Your task to perform on an android device: find photos in the google photos app Image 0: 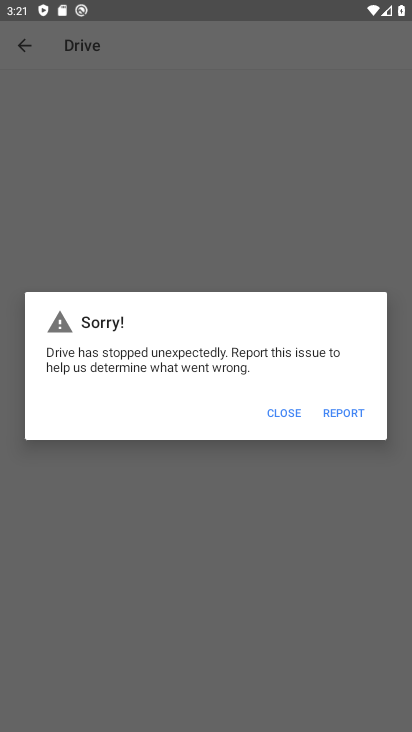
Step 0: press home button
Your task to perform on an android device: find photos in the google photos app Image 1: 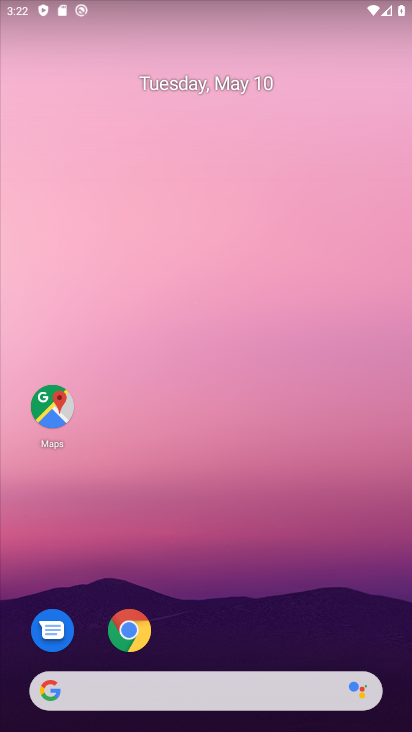
Step 1: drag from (183, 622) to (247, 102)
Your task to perform on an android device: find photos in the google photos app Image 2: 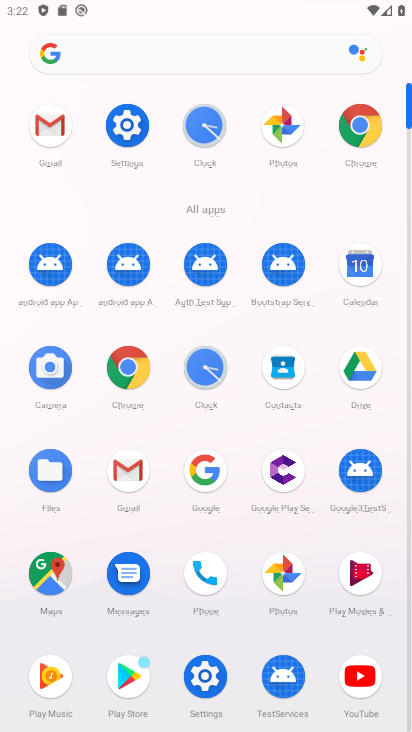
Step 2: click (276, 573)
Your task to perform on an android device: find photos in the google photos app Image 3: 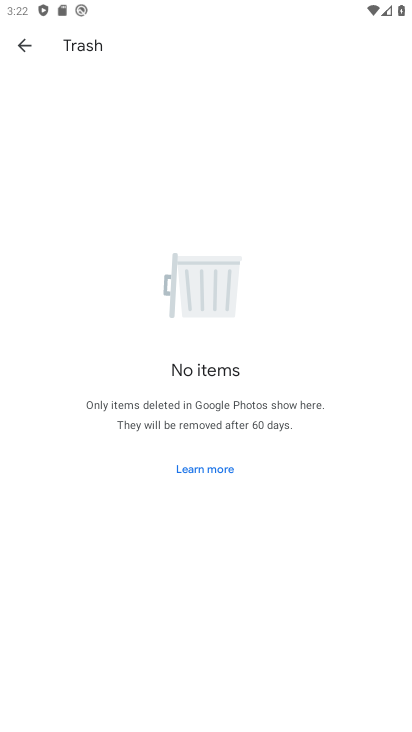
Step 3: click (40, 67)
Your task to perform on an android device: find photos in the google photos app Image 4: 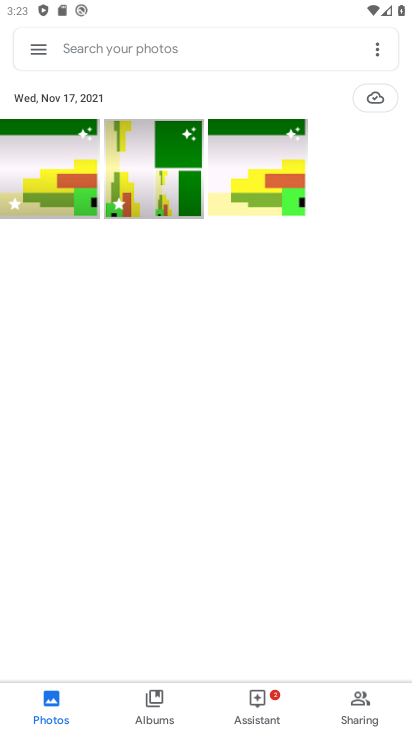
Step 4: task complete